Your task to perform on an android device: turn on improve location accuracy Image 0: 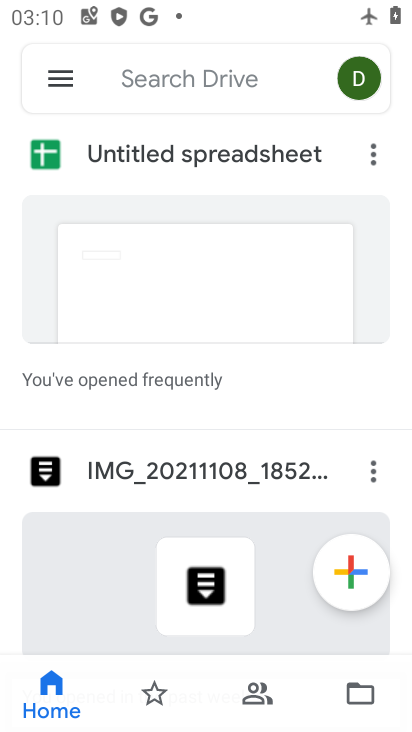
Step 0: press home button
Your task to perform on an android device: turn on improve location accuracy Image 1: 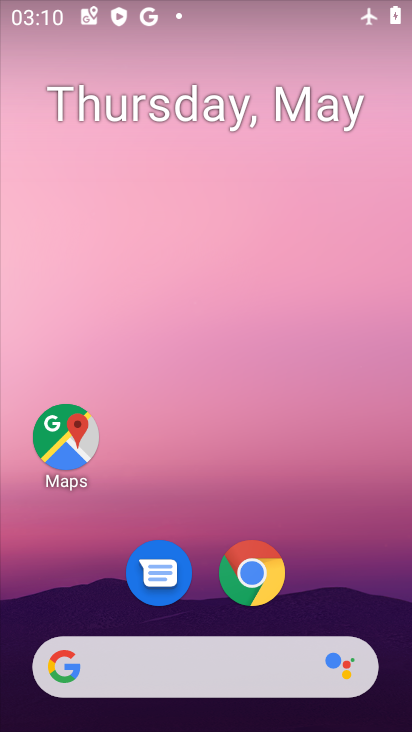
Step 1: drag from (304, 574) to (321, 194)
Your task to perform on an android device: turn on improve location accuracy Image 2: 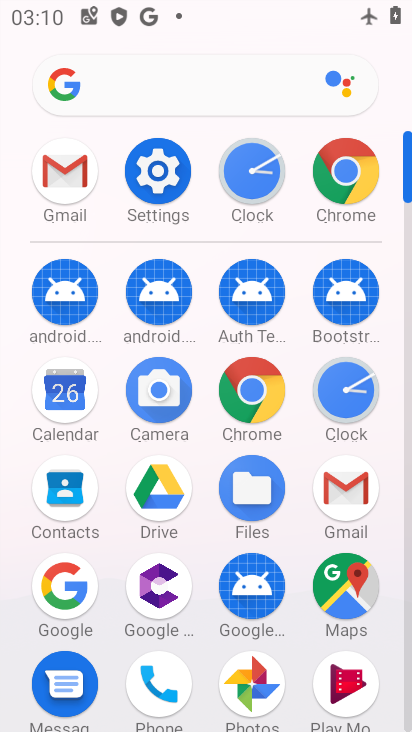
Step 2: click (156, 162)
Your task to perform on an android device: turn on improve location accuracy Image 3: 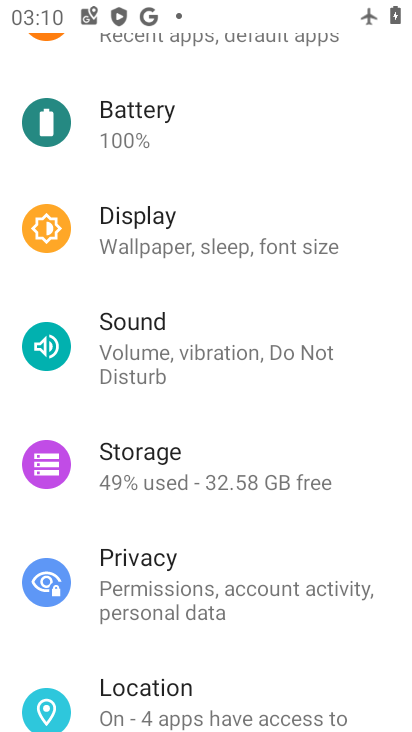
Step 3: click (188, 689)
Your task to perform on an android device: turn on improve location accuracy Image 4: 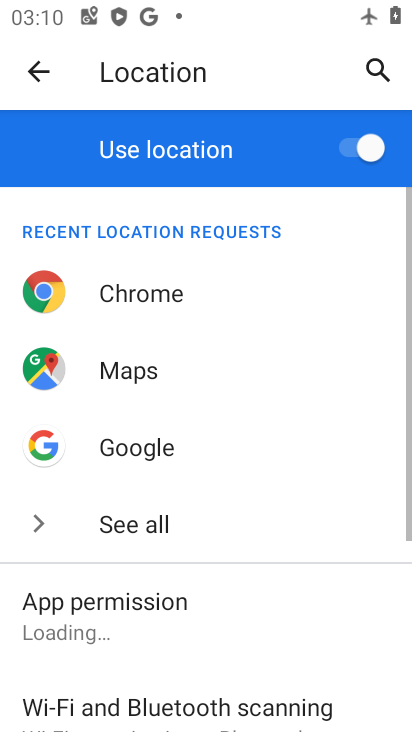
Step 4: drag from (221, 603) to (247, 308)
Your task to perform on an android device: turn on improve location accuracy Image 5: 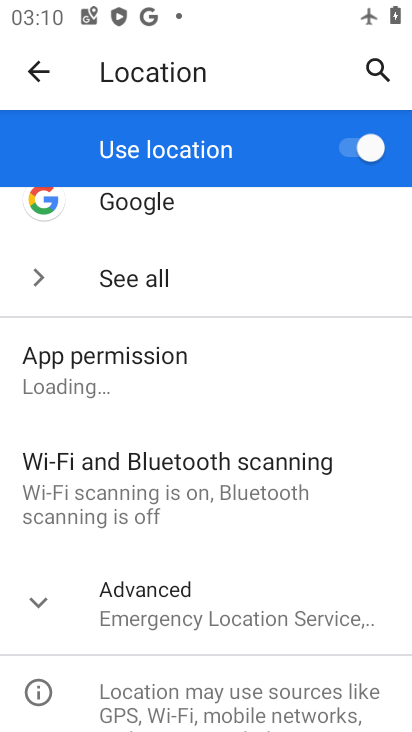
Step 5: click (196, 596)
Your task to perform on an android device: turn on improve location accuracy Image 6: 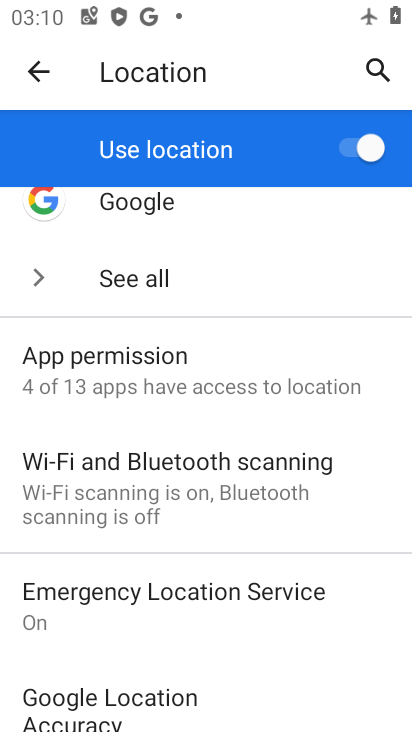
Step 6: drag from (188, 632) to (236, 374)
Your task to perform on an android device: turn on improve location accuracy Image 7: 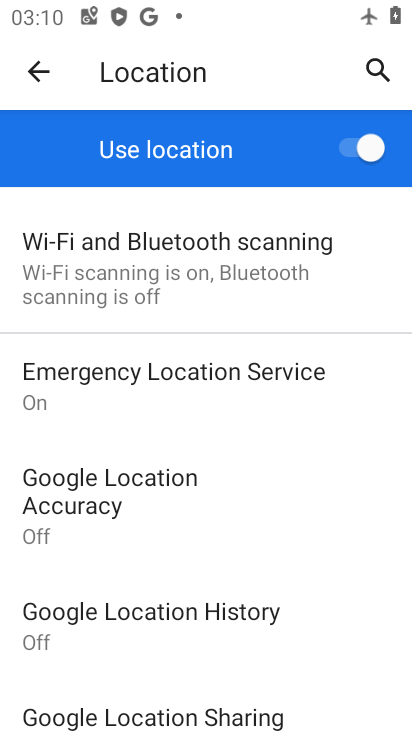
Step 7: drag from (183, 642) to (211, 443)
Your task to perform on an android device: turn on improve location accuracy Image 8: 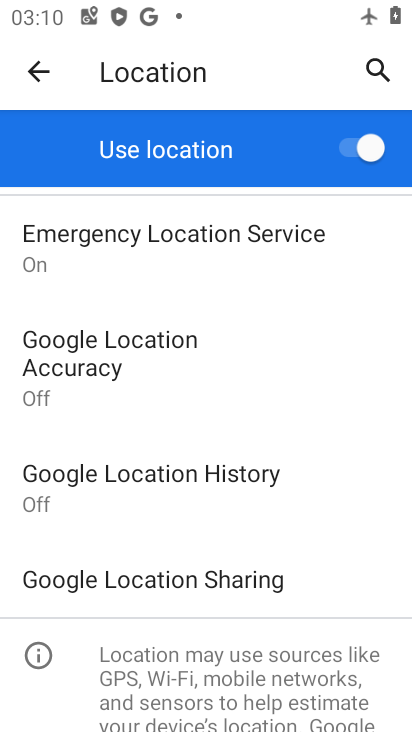
Step 8: click (159, 355)
Your task to perform on an android device: turn on improve location accuracy Image 9: 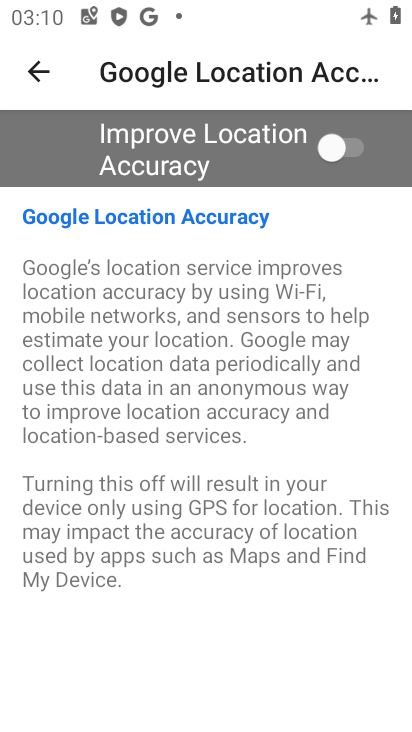
Step 9: click (372, 119)
Your task to perform on an android device: turn on improve location accuracy Image 10: 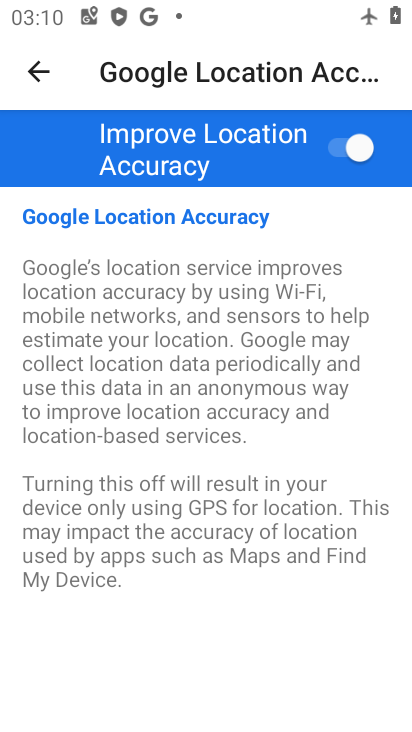
Step 10: task complete